Your task to perform on an android device: Is it going to rain this weekend? Image 0: 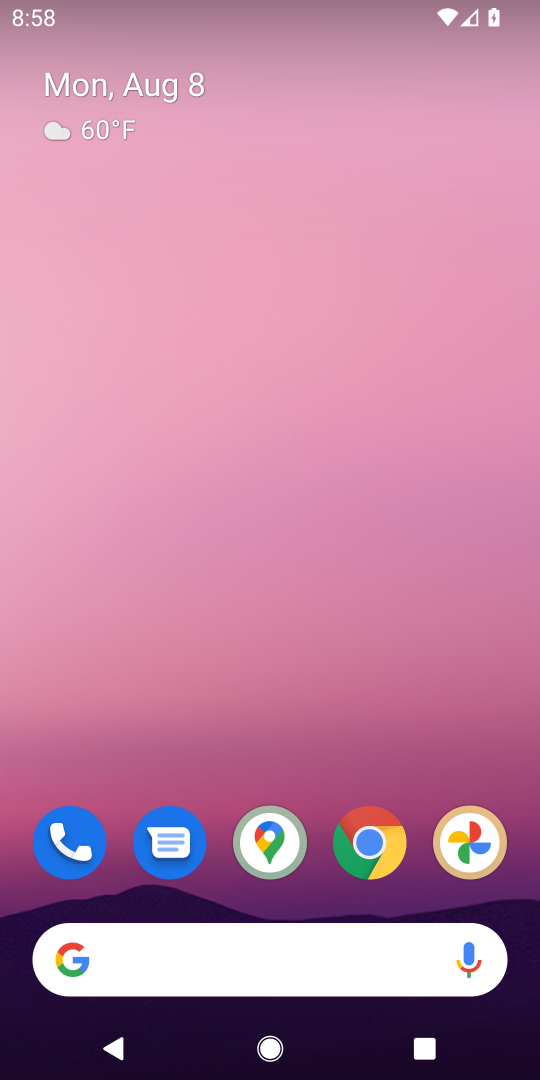
Step 0: click (171, 957)
Your task to perform on an android device: Is it going to rain this weekend? Image 1: 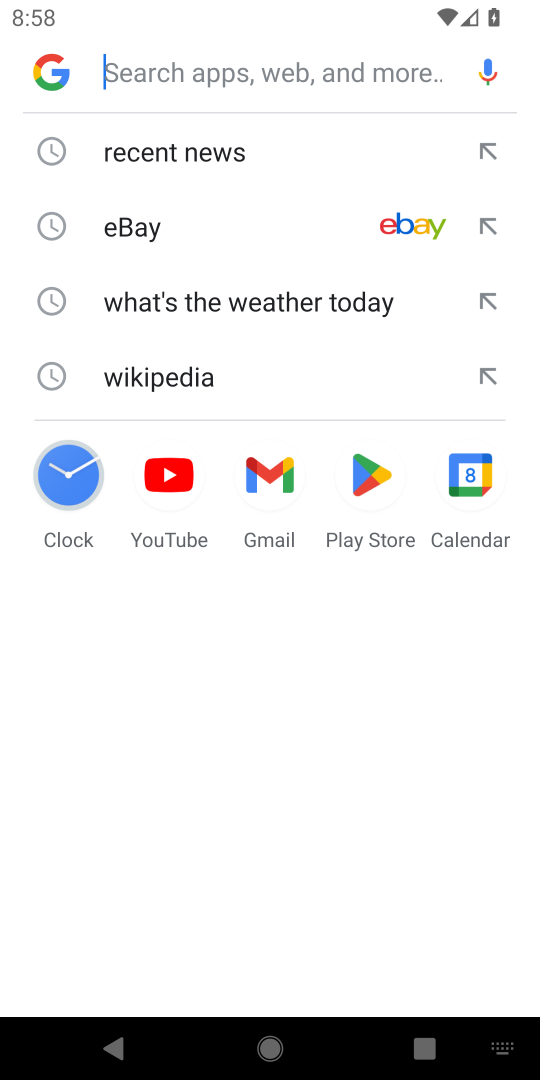
Step 1: type "is it going to rain this weekend"
Your task to perform on an android device: Is it going to rain this weekend? Image 2: 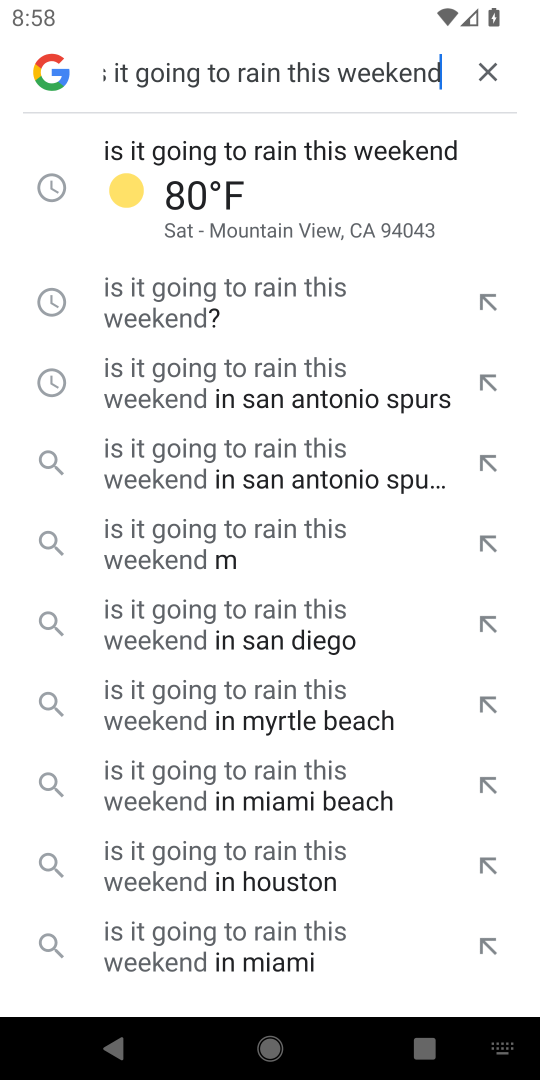
Step 2: click (248, 176)
Your task to perform on an android device: Is it going to rain this weekend? Image 3: 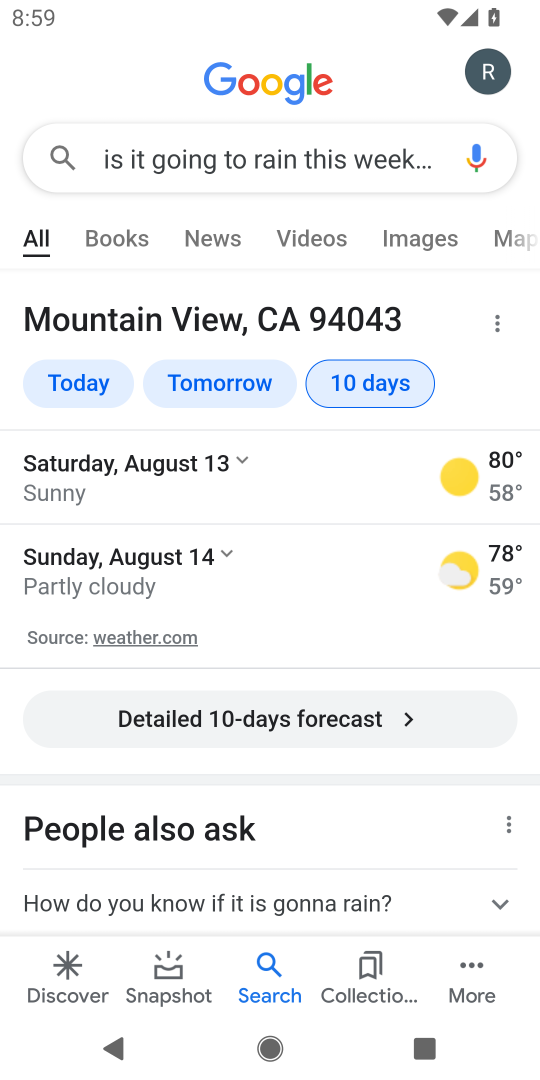
Step 3: task complete